Your task to perform on an android device: Open Google Image 0: 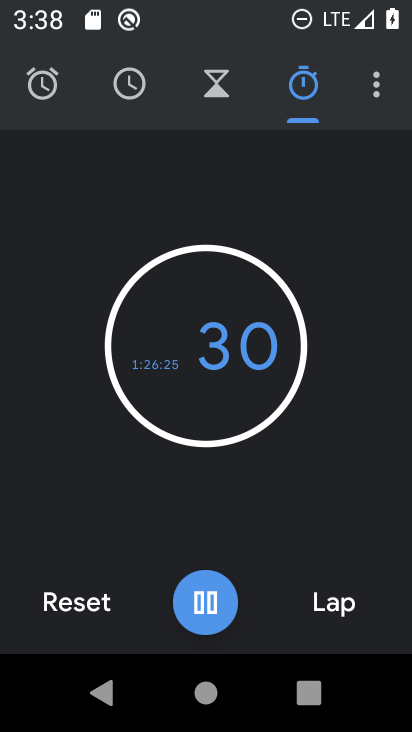
Step 0: press home button
Your task to perform on an android device: Open Google Image 1: 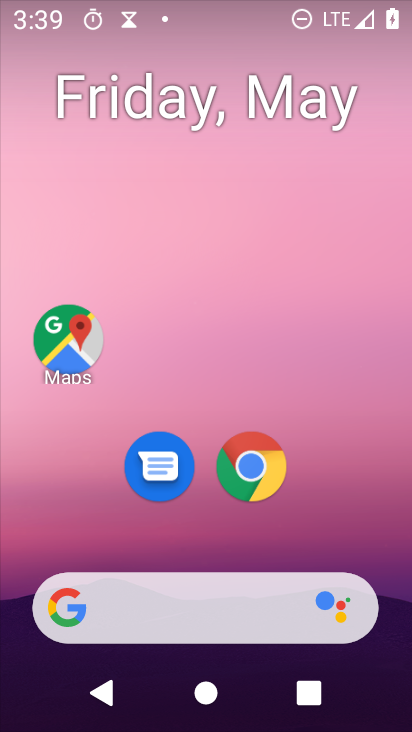
Step 1: drag from (357, 508) to (340, 91)
Your task to perform on an android device: Open Google Image 2: 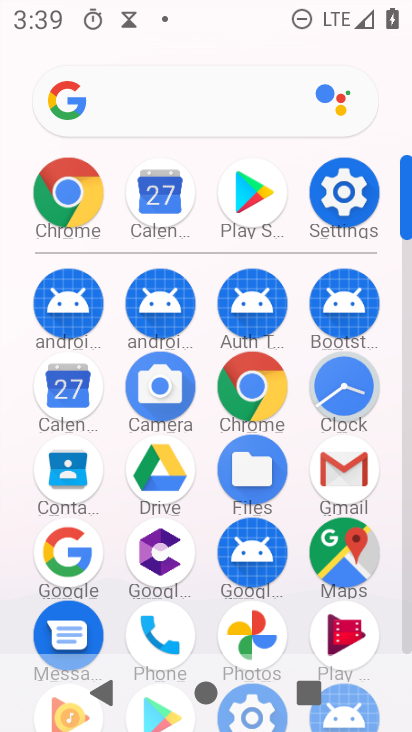
Step 2: drag from (391, 488) to (397, 259)
Your task to perform on an android device: Open Google Image 3: 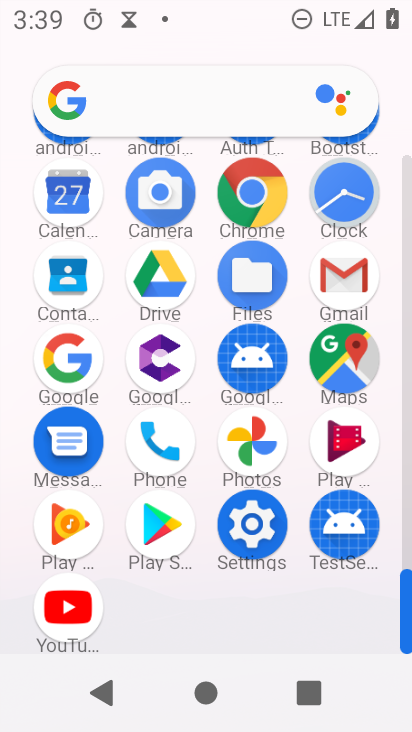
Step 3: click (79, 361)
Your task to perform on an android device: Open Google Image 4: 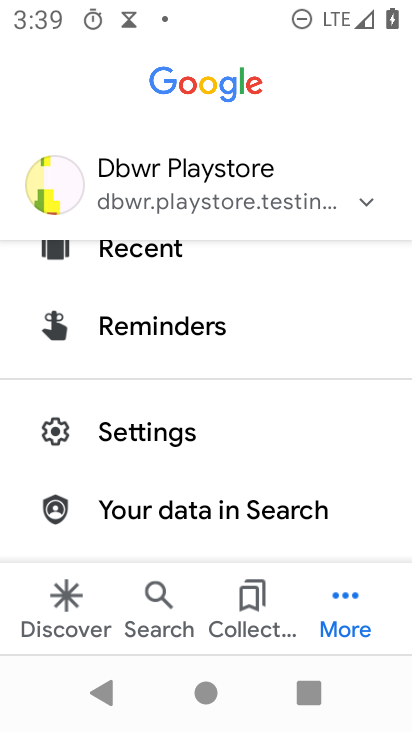
Step 4: task complete